Your task to perform on an android device: change keyboard looks Image 0: 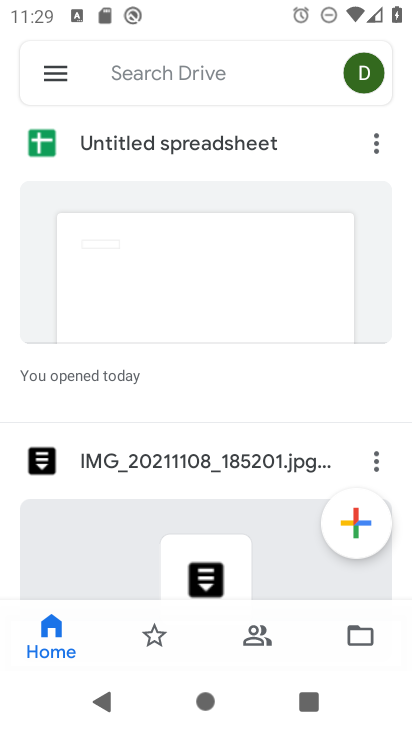
Step 0: press home button
Your task to perform on an android device: change keyboard looks Image 1: 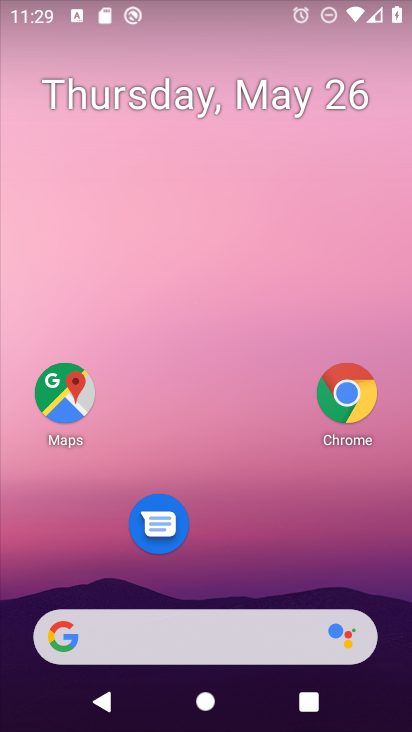
Step 1: drag from (236, 523) to (239, 33)
Your task to perform on an android device: change keyboard looks Image 2: 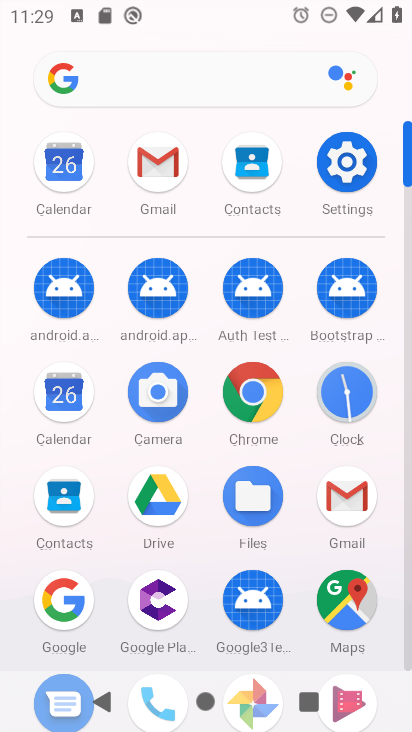
Step 2: click (341, 162)
Your task to perform on an android device: change keyboard looks Image 3: 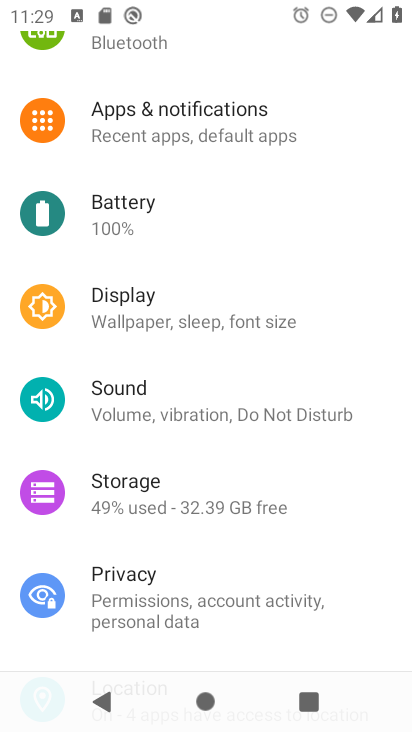
Step 3: drag from (253, 548) to (237, 90)
Your task to perform on an android device: change keyboard looks Image 4: 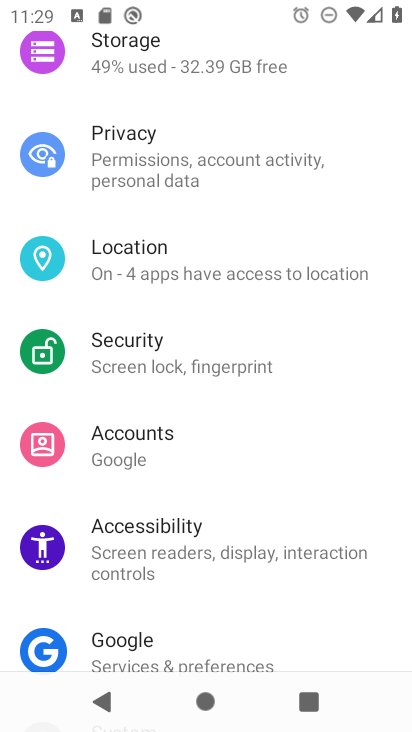
Step 4: drag from (227, 638) to (231, 134)
Your task to perform on an android device: change keyboard looks Image 5: 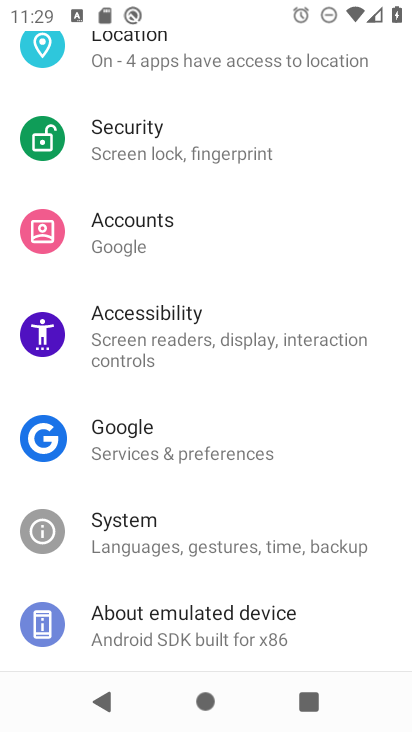
Step 5: click (212, 524)
Your task to perform on an android device: change keyboard looks Image 6: 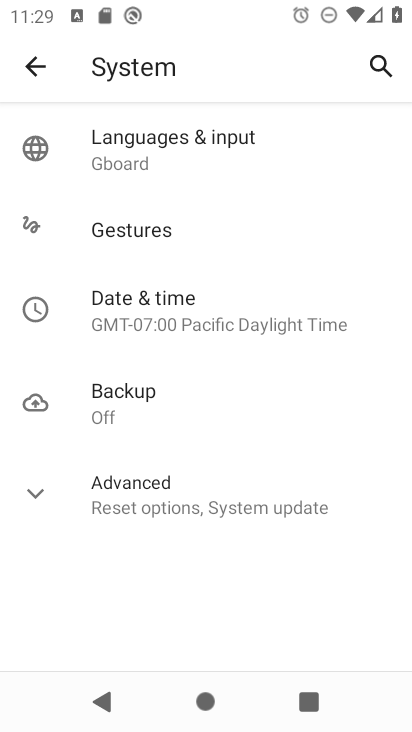
Step 6: click (202, 162)
Your task to perform on an android device: change keyboard looks Image 7: 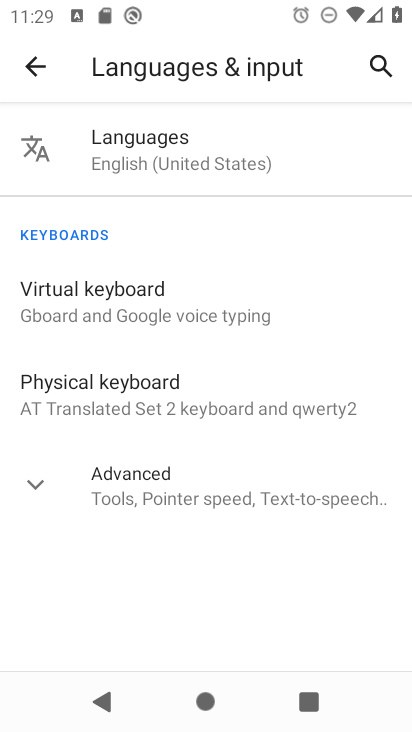
Step 7: click (120, 295)
Your task to perform on an android device: change keyboard looks Image 8: 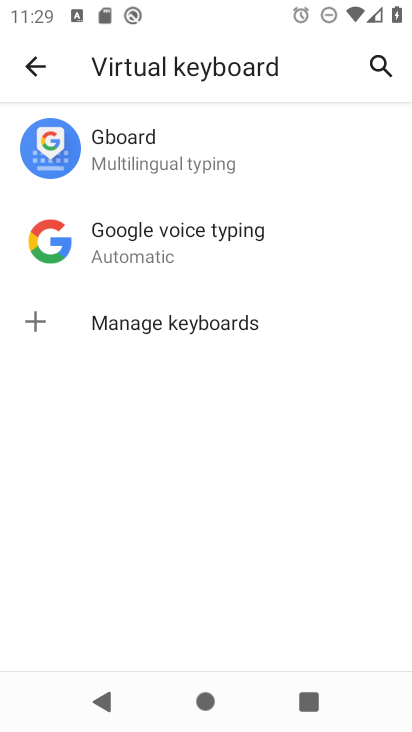
Step 8: click (125, 149)
Your task to perform on an android device: change keyboard looks Image 9: 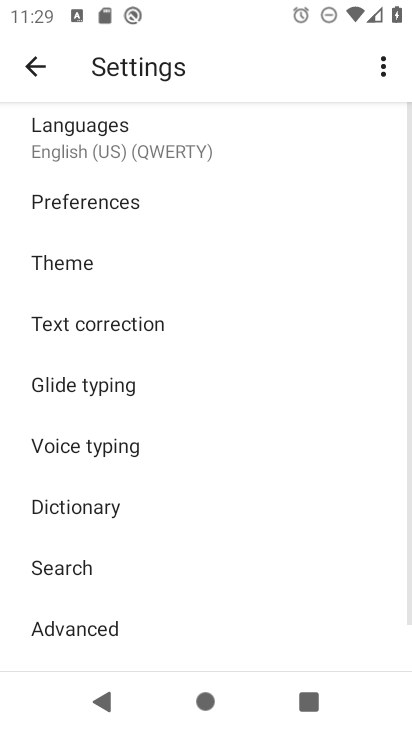
Step 9: click (125, 270)
Your task to perform on an android device: change keyboard looks Image 10: 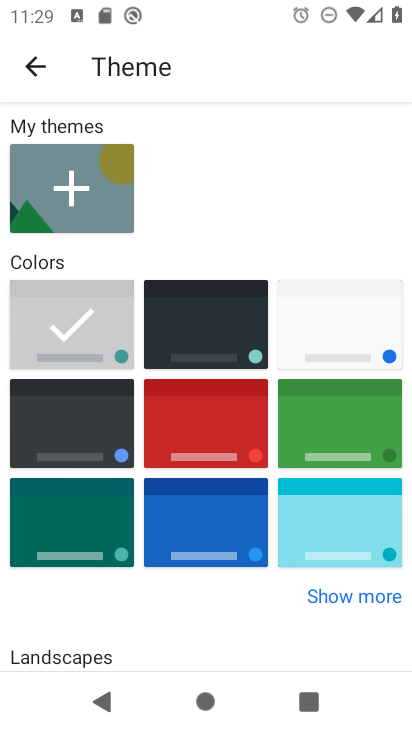
Step 10: click (231, 433)
Your task to perform on an android device: change keyboard looks Image 11: 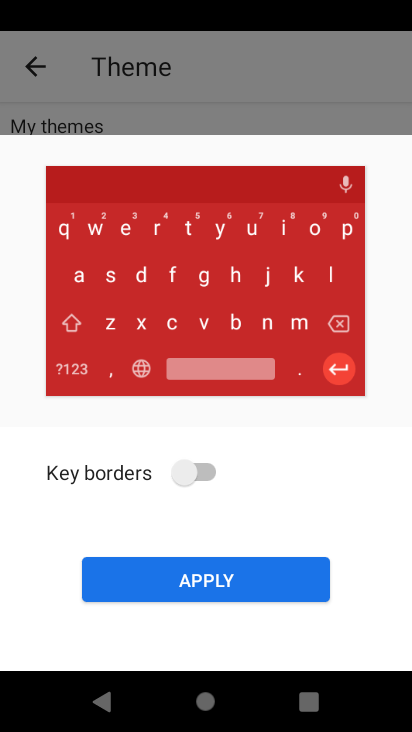
Step 11: click (194, 469)
Your task to perform on an android device: change keyboard looks Image 12: 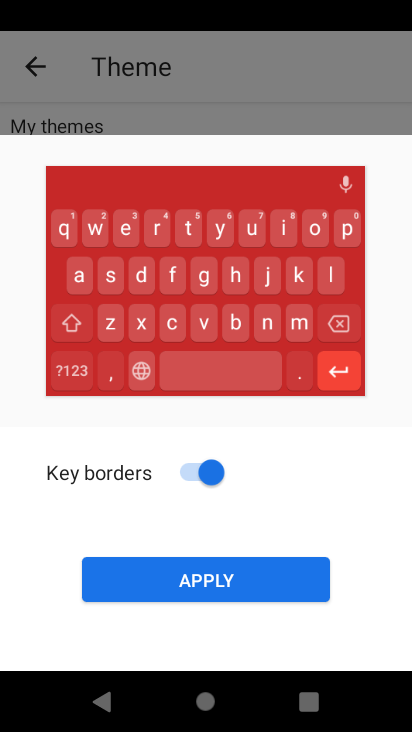
Step 12: click (232, 573)
Your task to perform on an android device: change keyboard looks Image 13: 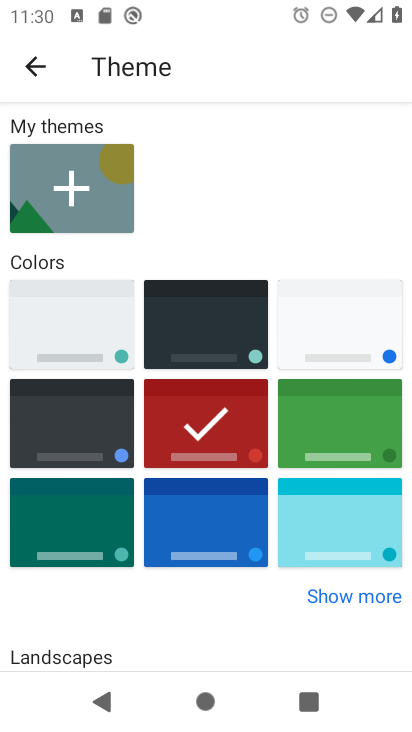
Step 13: task complete